Your task to perform on an android device: turn on the 12-hour format for clock Image 0: 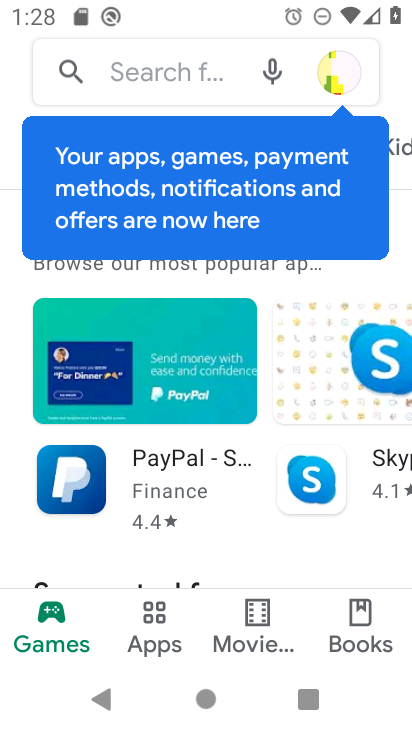
Step 0: click (217, 706)
Your task to perform on an android device: turn on the 12-hour format for clock Image 1: 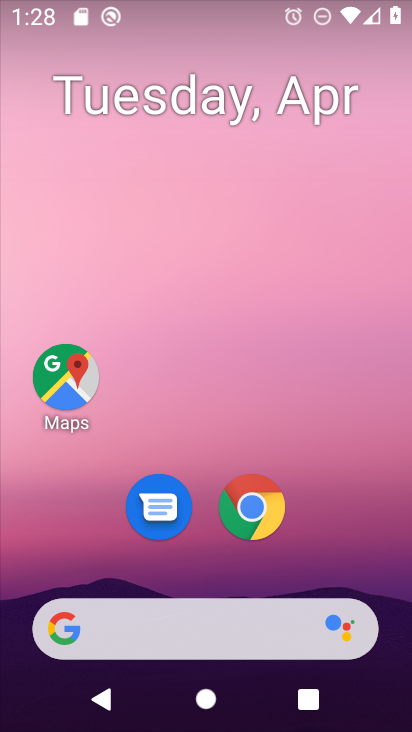
Step 1: drag from (339, 550) to (288, 0)
Your task to perform on an android device: turn on the 12-hour format for clock Image 2: 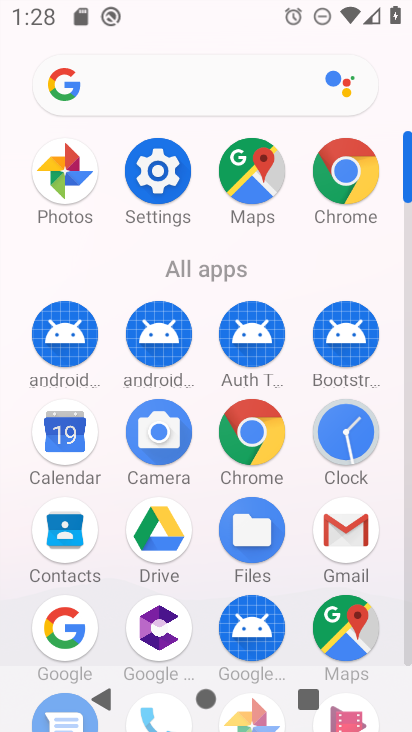
Step 2: click (340, 429)
Your task to perform on an android device: turn on the 12-hour format for clock Image 3: 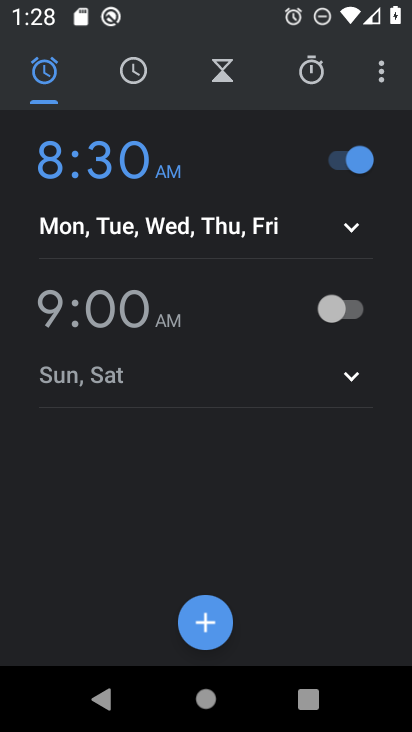
Step 3: click (384, 59)
Your task to perform on an android device: turn on the 12-hour format for clock Image 4: 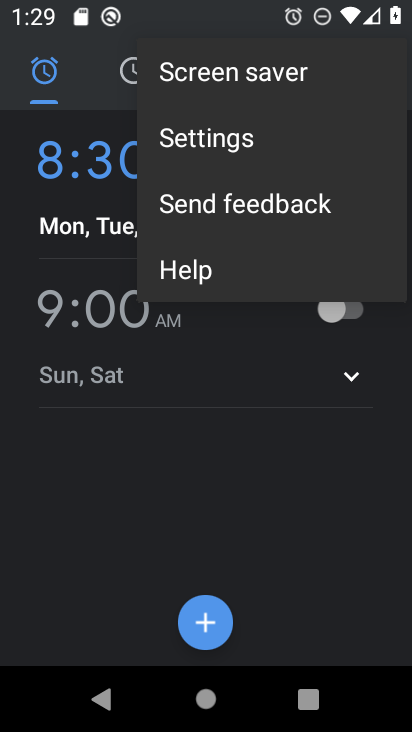
Step 4: click (292, 137)
Your task to perform on an android device: turn on the 12-hour format for clock Image 5: 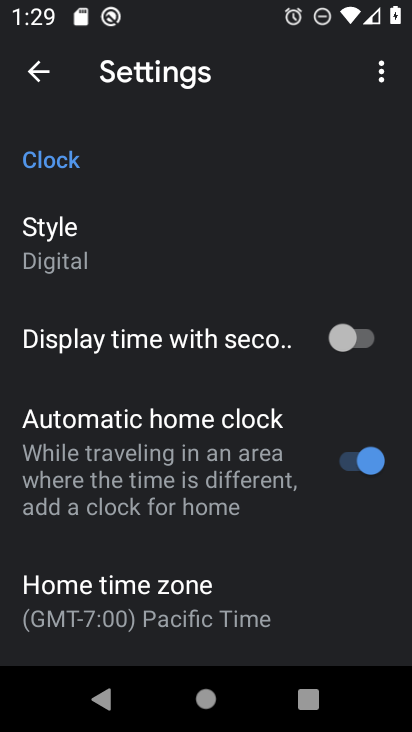
Step 5: drag from (237, 452) to (173, 92)
Your task to perform on an android device: turn on the 12-hour format for clock Image 6: 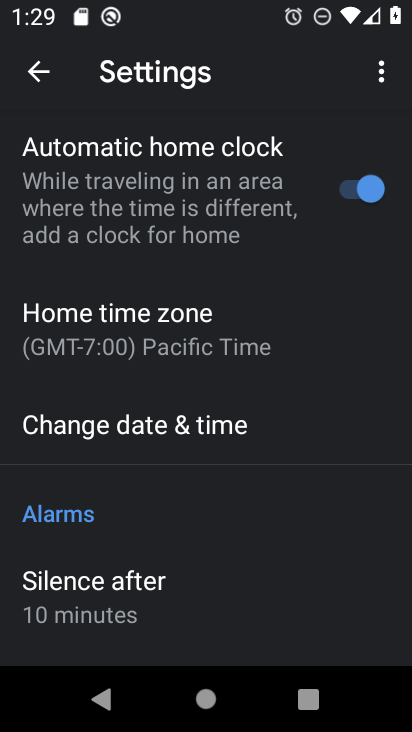
Step 6: click (133, 407)
Your task to perform on an android device: turn on the 12-hour format for clock Image 7: 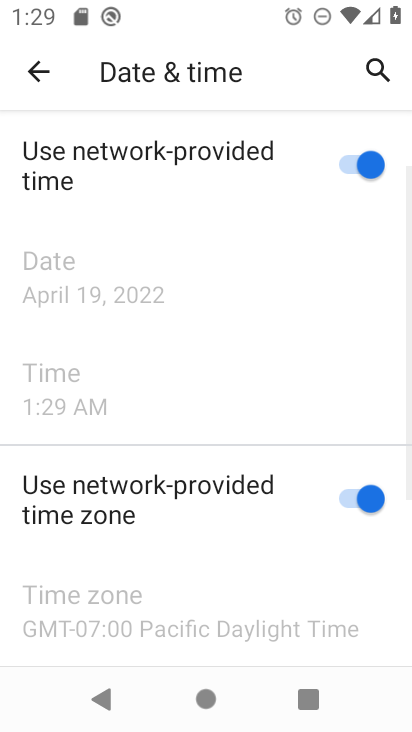
Step 7: drag from (199, 512) to (181, 240)
Your task to perform on an android device: turn on the 12-hour format for clock Image 8: 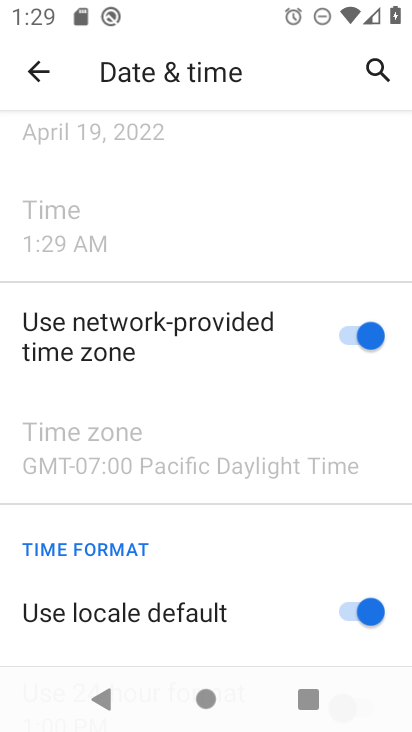
Step 8: drag from (171, 508) to (130, 181)
Your task to perform on an android device: turn on the 12-hour format for clock Image 9: 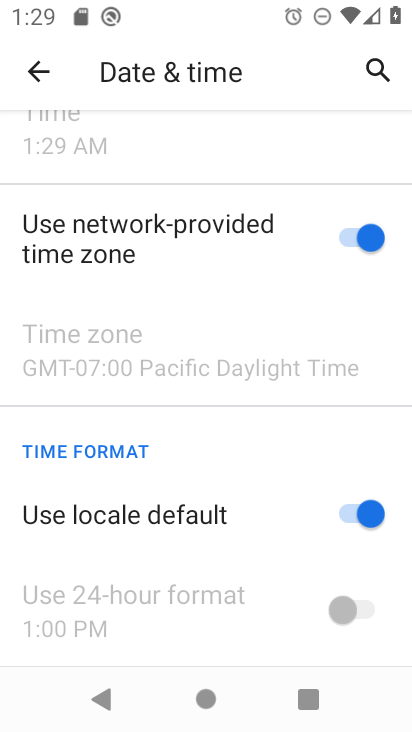
Step 9: click (339, 507)
Your task to perform on an android device: turn on the 12-hour format for clock Image 10: 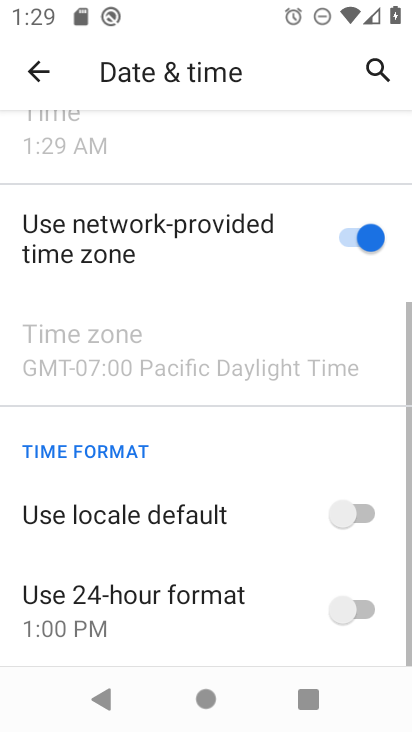
Step 10: click (374, 600)
Your task to perform on an android device: turn on the 12-hour format for clock Image 11: 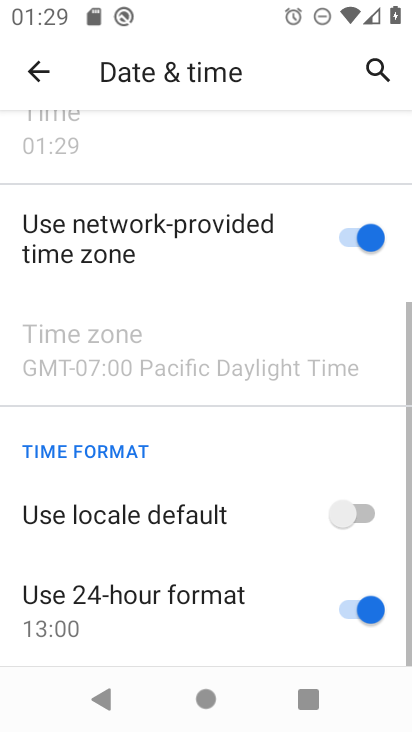
Step 11: click (374, 600)
Your task to perform on an android device: turn on the 12-hour format for clock Image 12: 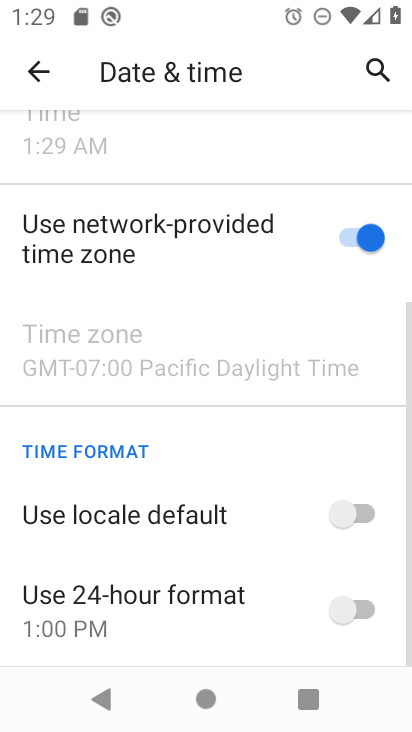
Step 12: task complete